Your task to perform on an android device: View the shopping cart on amazon. Image 0: 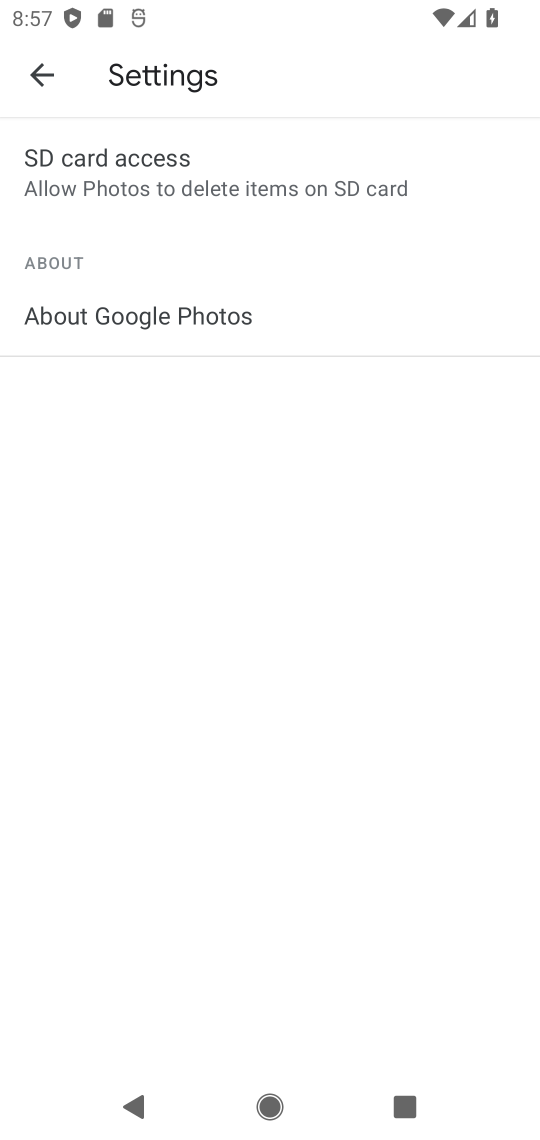
Step 0: press home button
Your task to perform on an android device: View the shopping cart on amazon. Image 1: 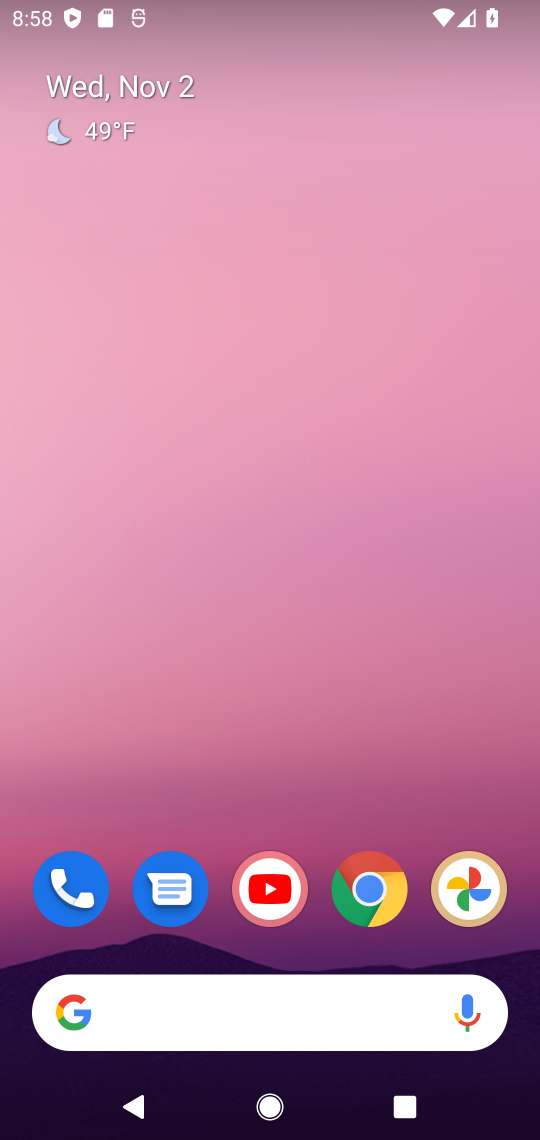
Step 1: drag from (302, 791) to (303, 61)
Your task to perform on an android device: View the shopping cart on amazon. Image 2: 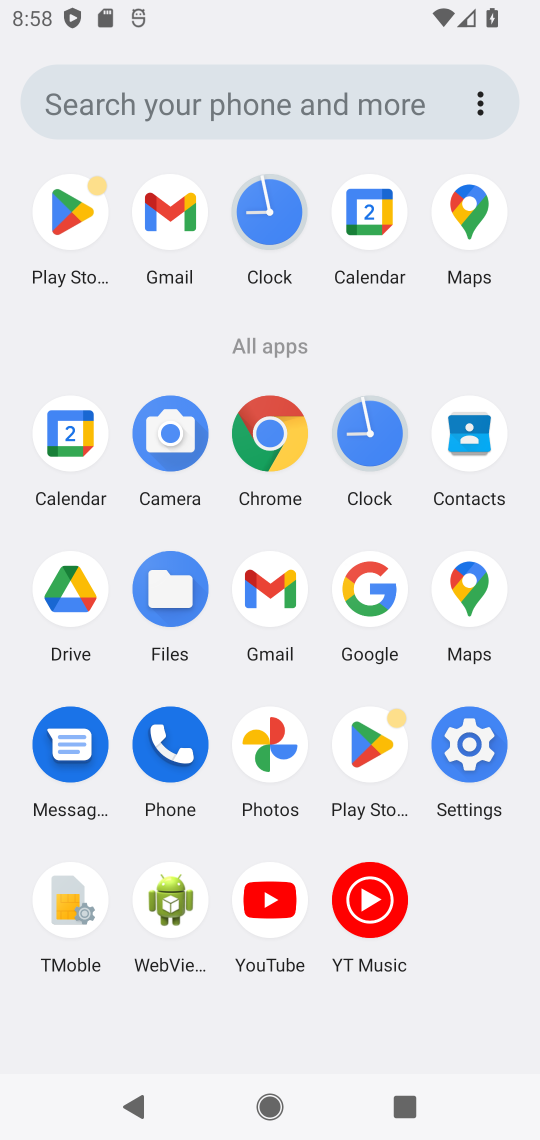
Step 2: click (270, 455)
Your task to perform on an android device: View the shopping cart on amazon. Image 3: 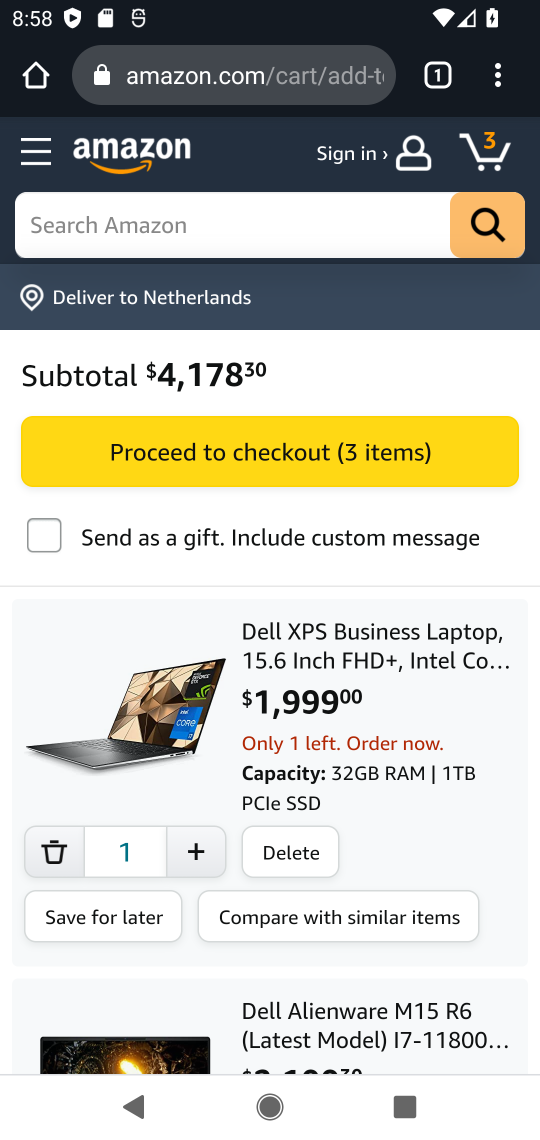
Step 3: click (471, 153)
Your task to perform on an android device: View the shopping cart on amazon. Image 4: 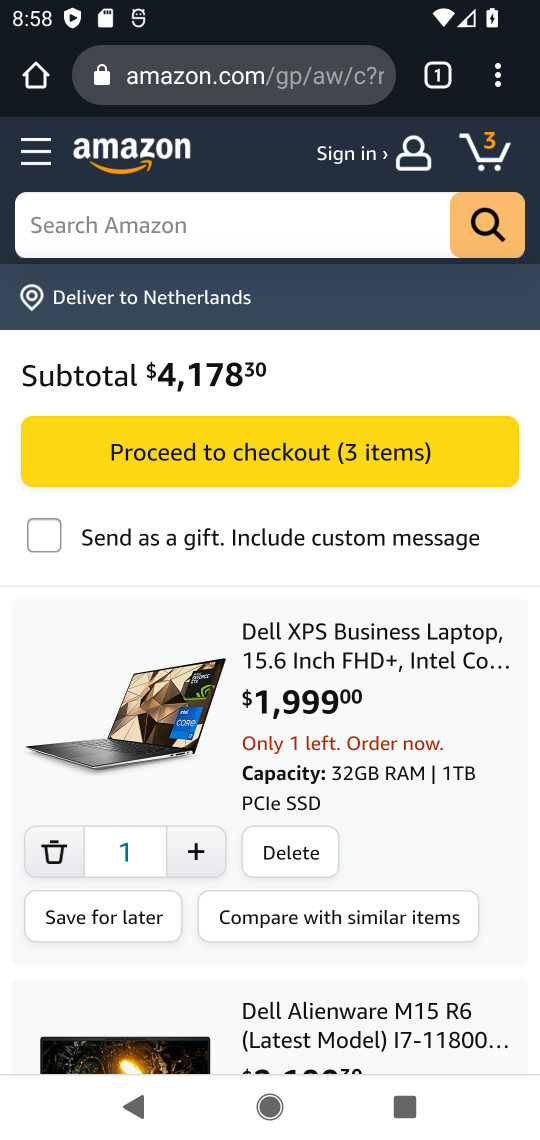
Step 4: task complete